Your task to perform on an android device: turn on showing notifications on the lock screen Image 0: 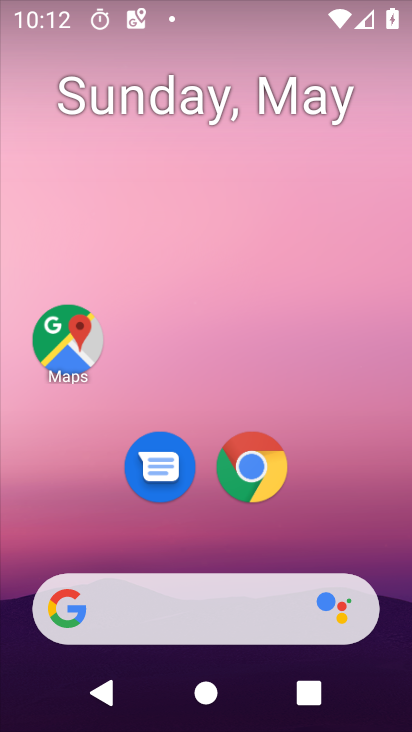
Step 0: drag from (178, 539) to (169, 284)
Your task to perform on an android device: turn on showing notifications on the lock screen Image 1: 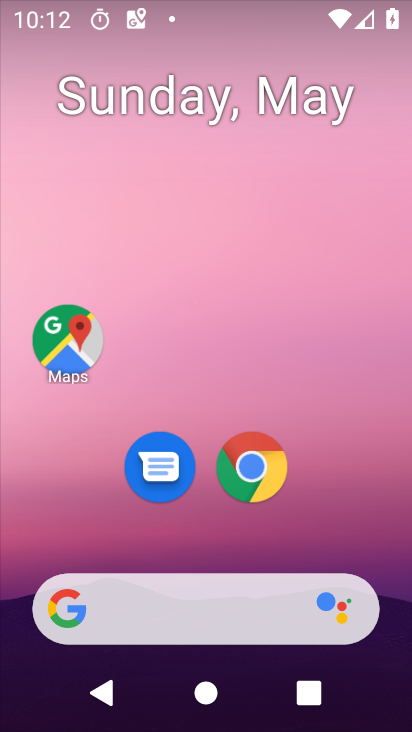
Step 1: drag from (199, 538) to (166, 154)
Your task to perform on an android device: turn on showing notifications on the lock screen Image 2: 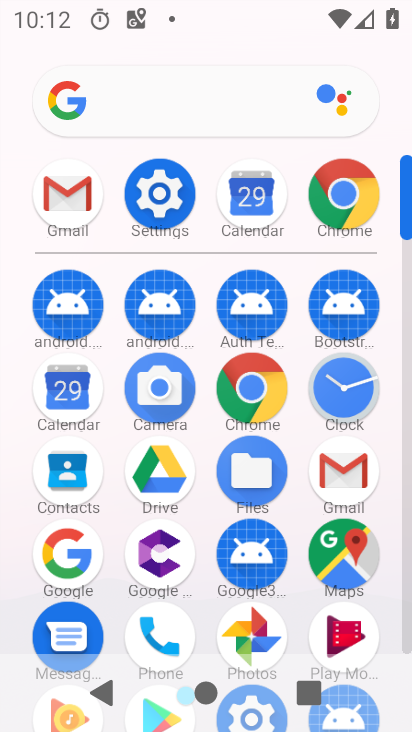
Step 2: click (165, 156)
Your task to perform on an android device: turn on showing notifications on the lock screen Image 3: 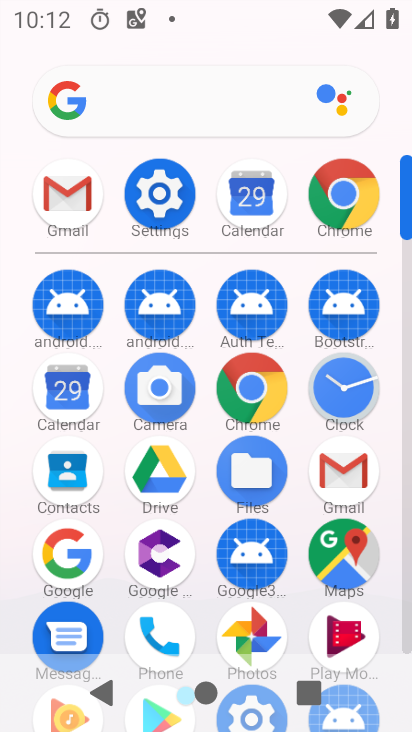
Step 3: click (165, 190)
Your task to perform on an android device: turn on showing notifications on the lock screen Image 4: 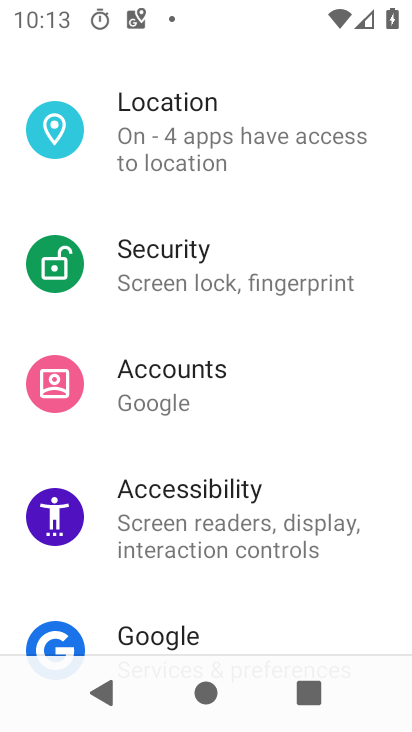
Step 4: drag from (215, 249) to (227, 534)
Your task to perform on an android device: turn on showing notifications on the lock screen Image 5: 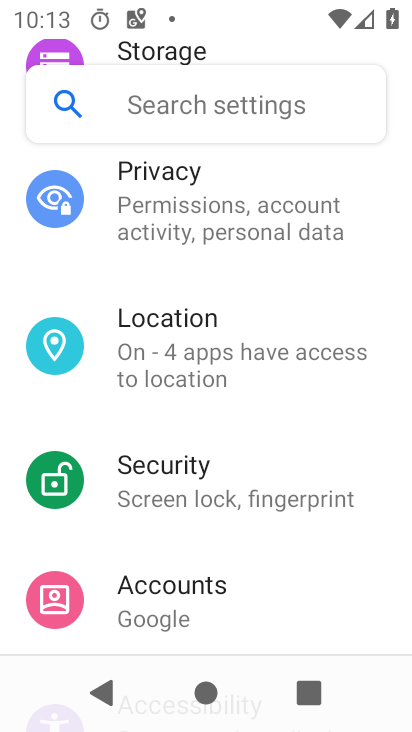
Step 5: drag from (225, 258) to (228, 519)
Your task to perform on an android device: turn on showing notifications on the lock screen Image 6: 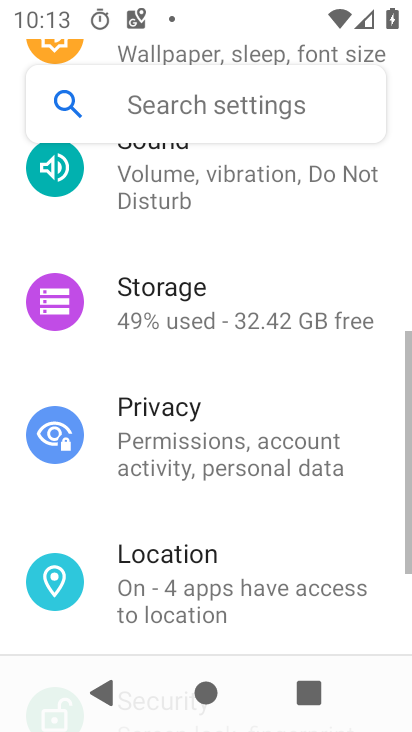
Step 6: drag from (228, 185) to (228, 465)
Your task to perform on an android device: turn on showing notifications on the lock screen Image 7: 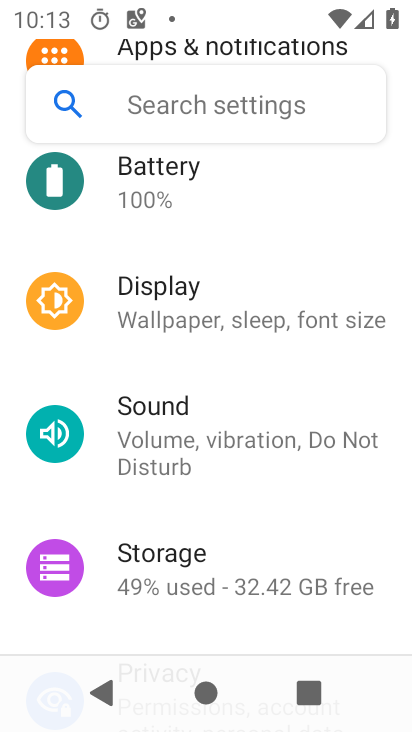
Step 7: drag from (224, 246) to (222, 465)
Your task to perform on an android device: turn on showing notifications on the lock screen Image 8: 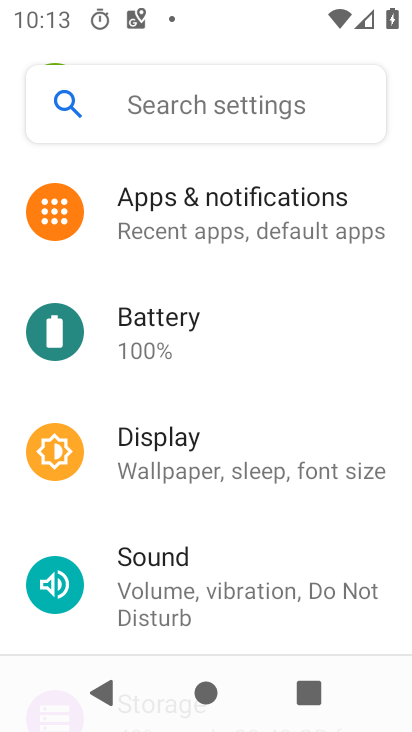
Step 8: click (186, 238)
Your task to perform on an android device: turn on showing notifications on the lock screen Image 9: 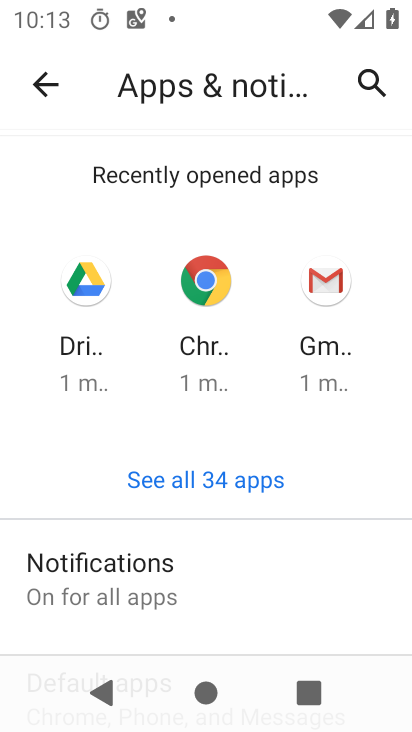
Step 9: drag from (229, 599) to (244, 397)
Your task to perform on an android device: turn on showing notifications on the lock screen Image 10: 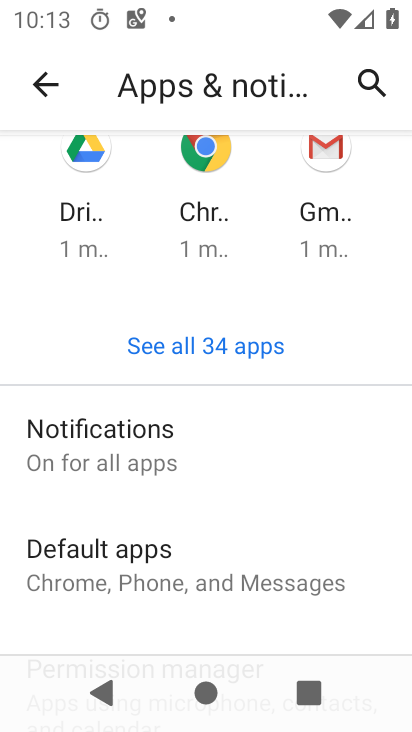
Step 10: click (148, 464)
Your task to perform on an android device: turn on showing notifications on the lock screen Image 11: 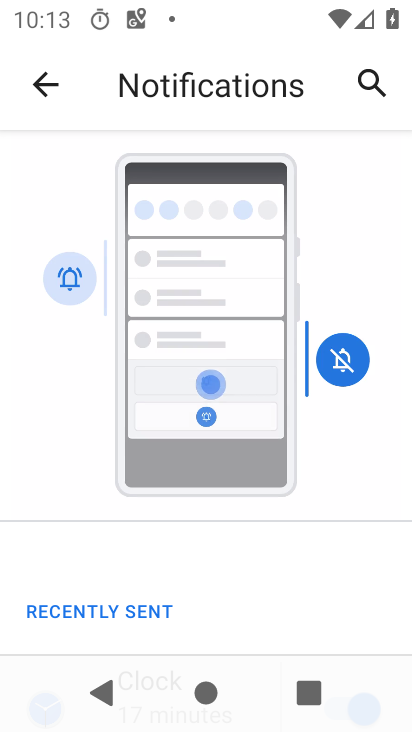
Step 11: drag from (208, 586) to (208, 185)
Your task to perform on an android device: turn on showing notifications on the lock screen Image 12: 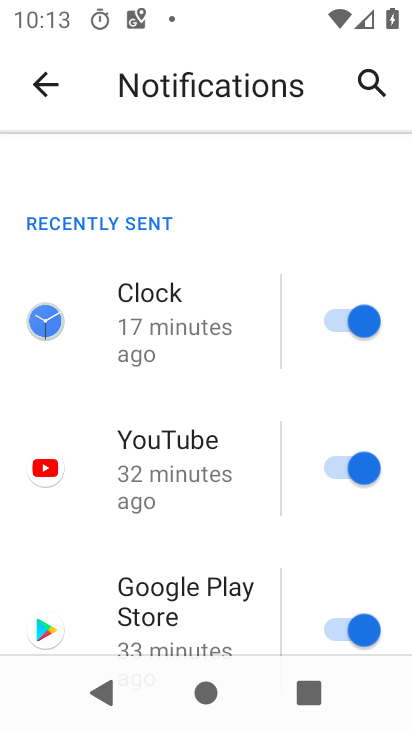
Step 12: drag from (249, 592) to (235, 258)
Your task to perform on an android device: turn on showing notifications on the lock screen Image 13: 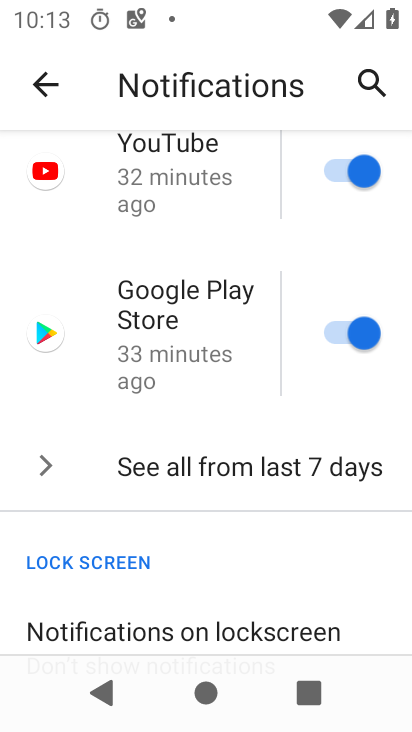
Step 13: drag from (212, 538) to (230, 291)
Your task to perform on an android device: turn on showing notifications on the lock screen Image 14: 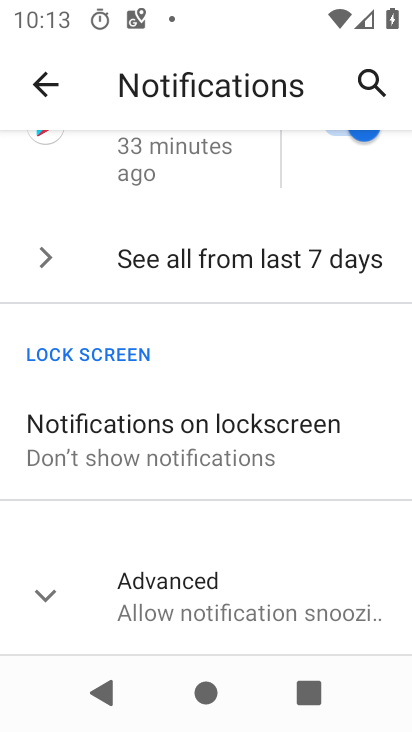
Step 14: click (210, 437)
Your task to perform on an android device: turn on showing notifications on the lock screen Image 15: 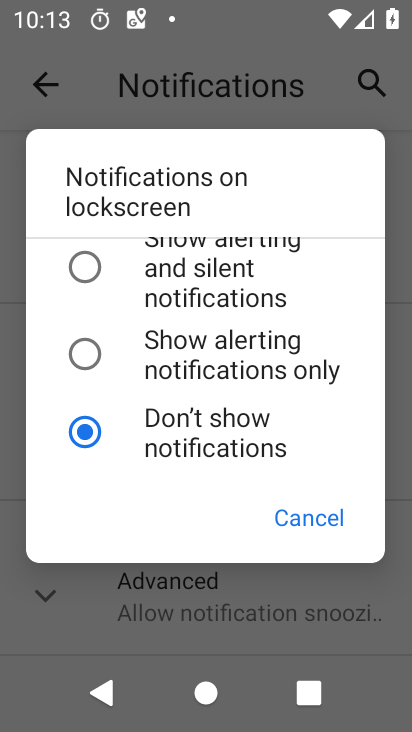
Step 15: click (79, 248)
Your task to perform on an android device: turn on showing notifications on the lock screen Image 16: 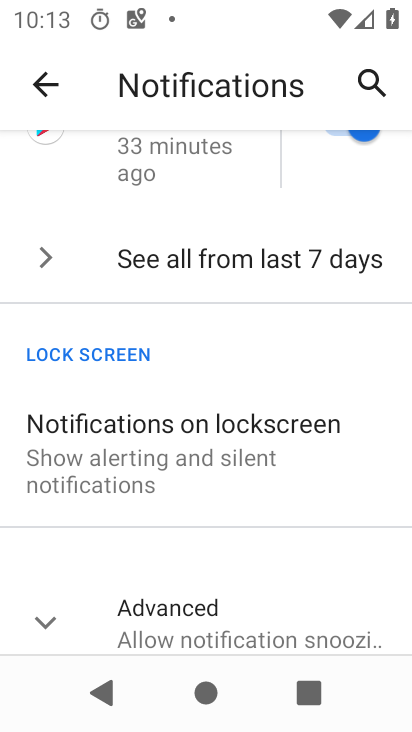
Step 16: task complete